Your task to perform on an android device: Go to internet settings Image 0: 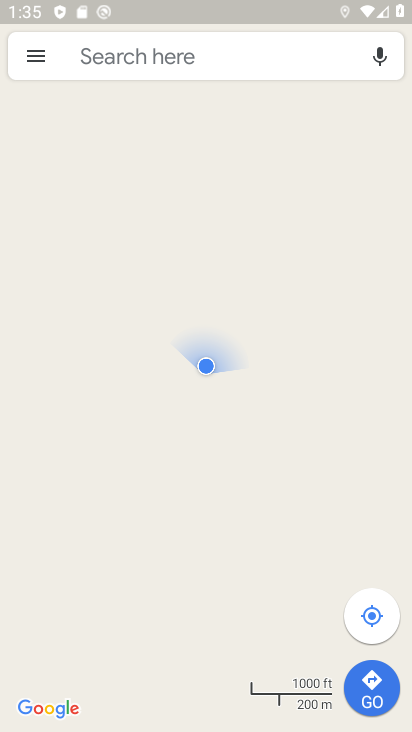
Step 0: press home button
Your task to perform on an android device: Go to internet settings Image 1: 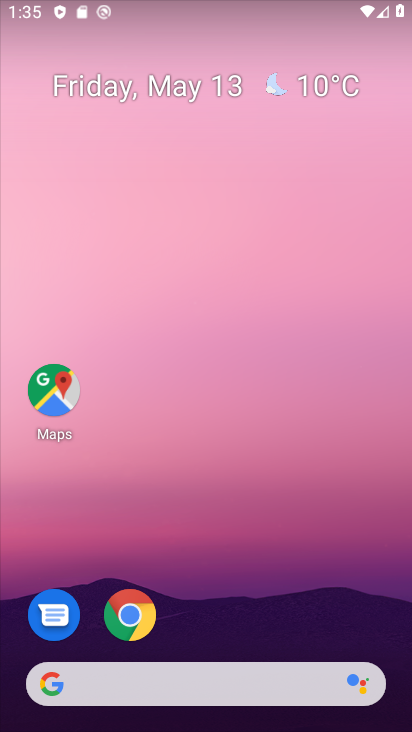
Step 1: drag from (228, 623) to (173, 177)
Your task to perform on an android device: Go to internet settings Image 2: 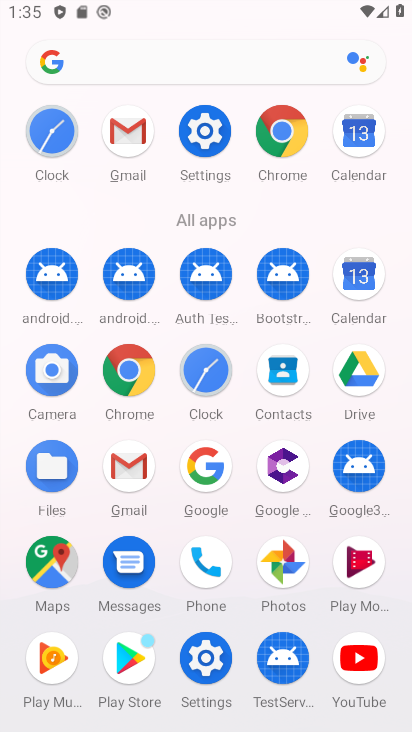
Step 2: click (210, 140)
Your task to perform on an android device: Go to internet settings Image 3: 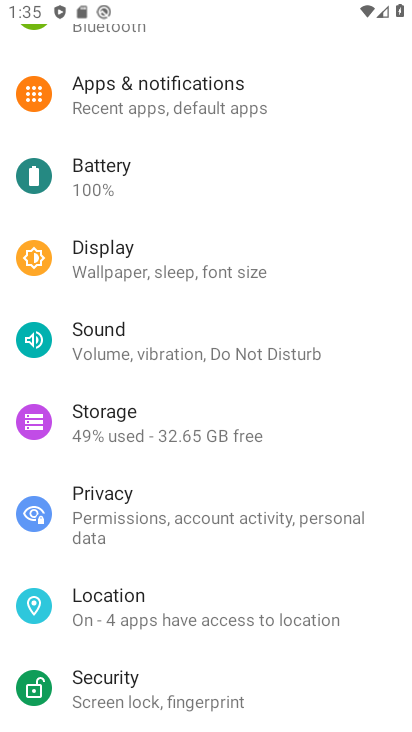
Step 3: drag from (210, 140) to (203, 641)
Your task to perform on an android device: Go to internet settings Image 4: 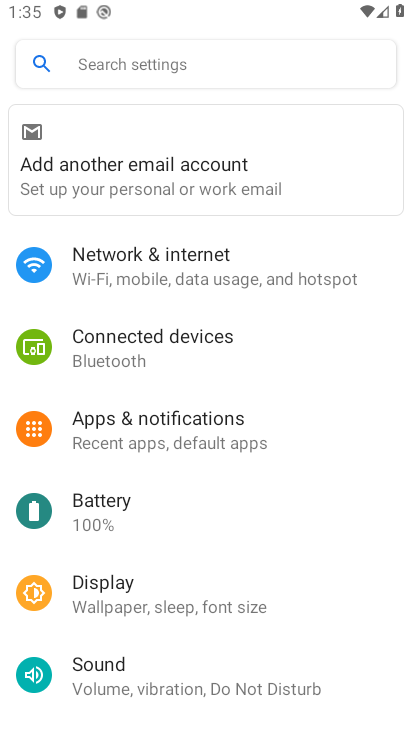
Step 4: click (211, 264)
Your task to perform on an android device: Go to internet settings Image 5: 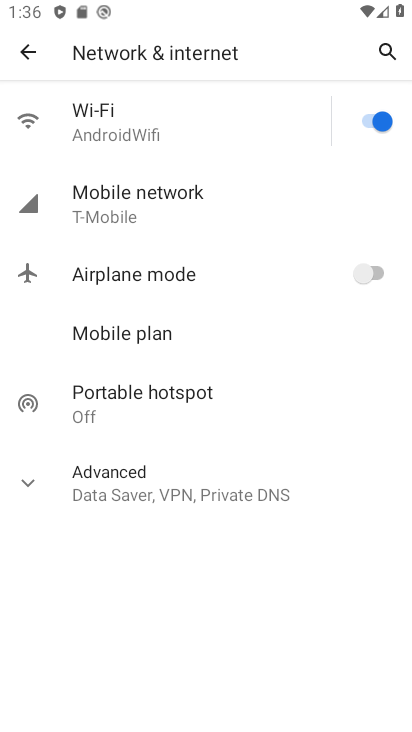
Step 5: task complete